Your task to perform on an android device: Open wifi settings Image 0: 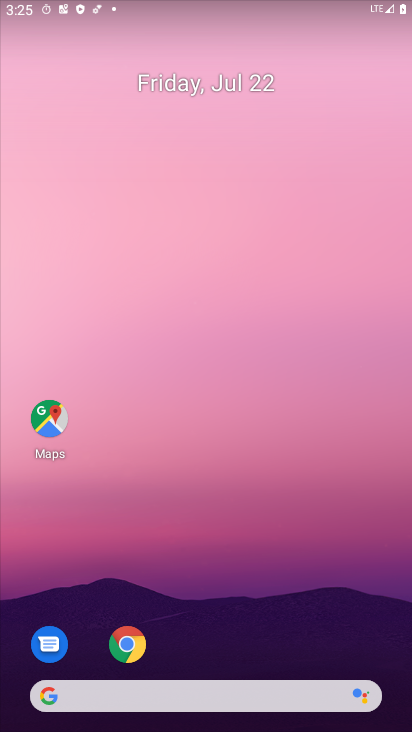
Step 0: press home button
Your task to perform on an android device: Open wifi settings Image 1: 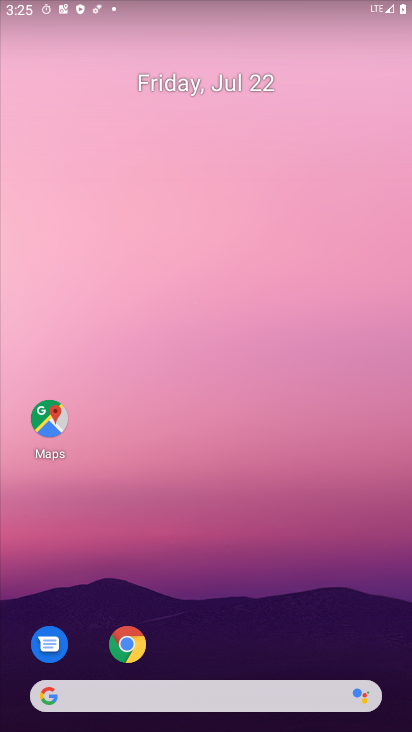
Step 1: drag from (238, 611) to (234, 8)
Your task to perform on an android device: Open wifi settings Image 2: 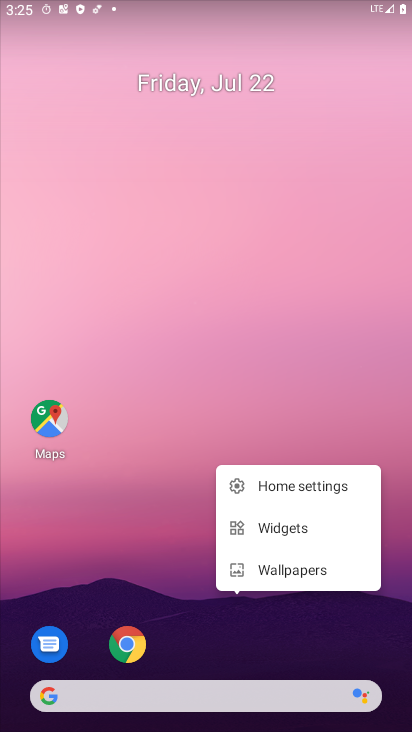
Step 2: drag from (200, 614) to (169, 2)
Your task to perform on an android device: Open wifi settings Image 3: 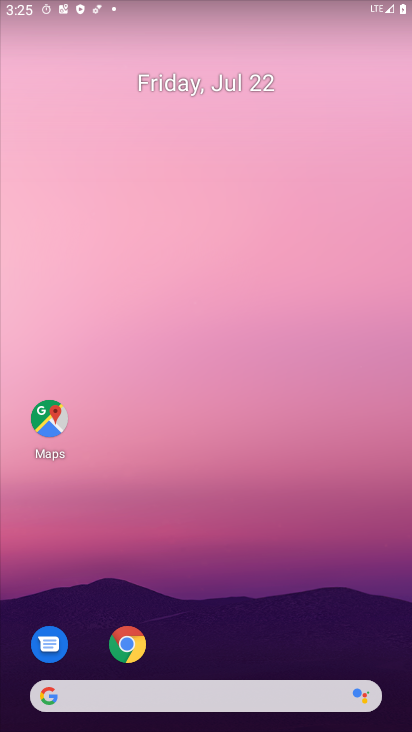
Step 3: drag from (228, 639) to (183, 1)
Your task to perform on an android device: Open wifi settings Image 4: 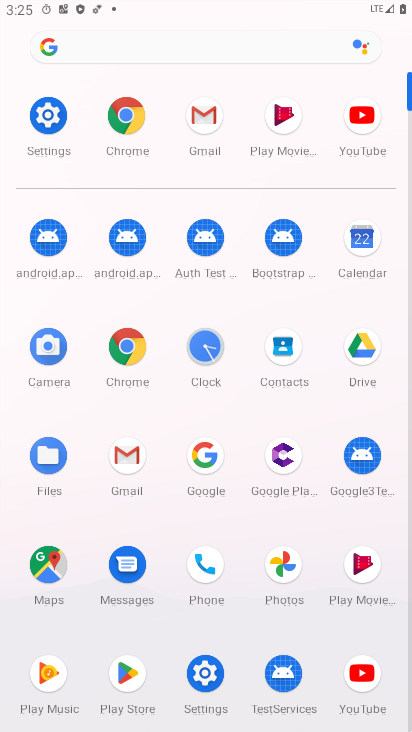
Step 4: click (40, 117)
Your task to perform on an android device: Open wifi settings Image 5: 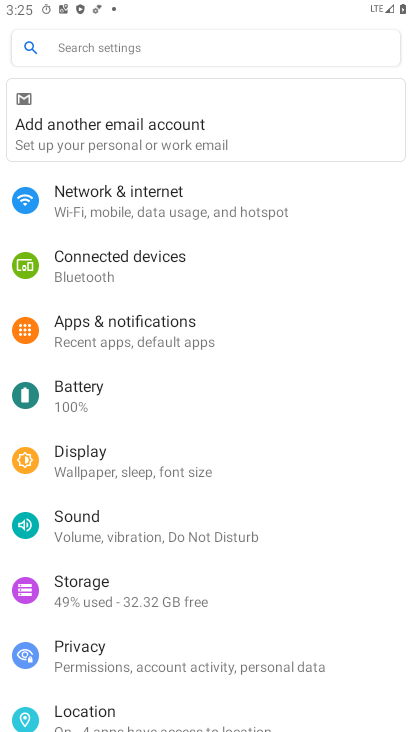
Step 5: click (140, 199)
Your task to perform on an android device: Open wifi settings Image 6: 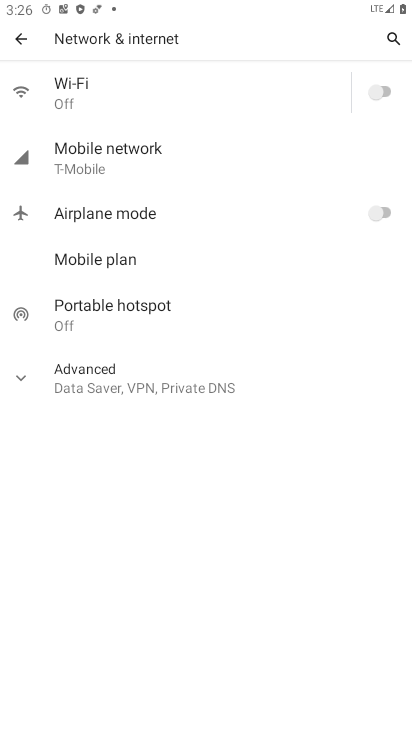
Step 6: click (73, 91)
Your task to perform on an android device: Open wifi settings Image 7: 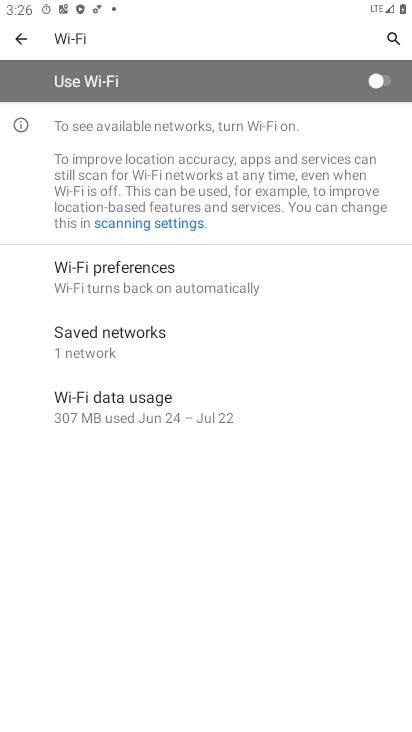
Step 7: click (380, 82)
Your task to perform on an android device: Open wifi settings Image 8: 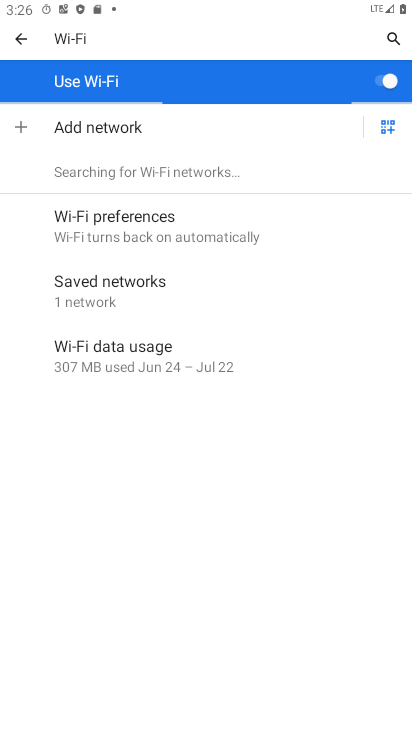
Step 8: task complete